Your task to perform on an android device: find snoozed emails in the gmail app Image 0: 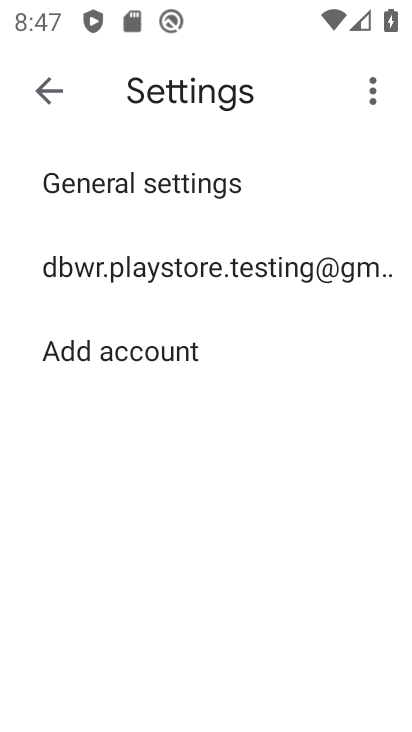
Step 0: press home button
Your task to perform on an android device: find snoozed emails in the gmail app Image 1: 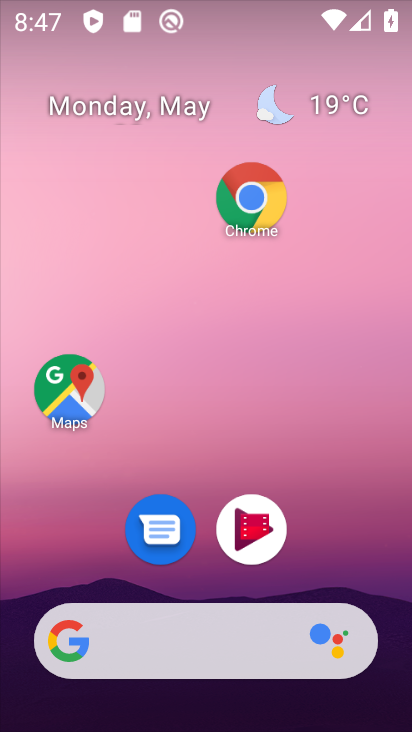
Step 1: drag from (313, 584) to (296, 1)
Your task to perform on an android device: find snoozed emails in the gmail app Image 2: 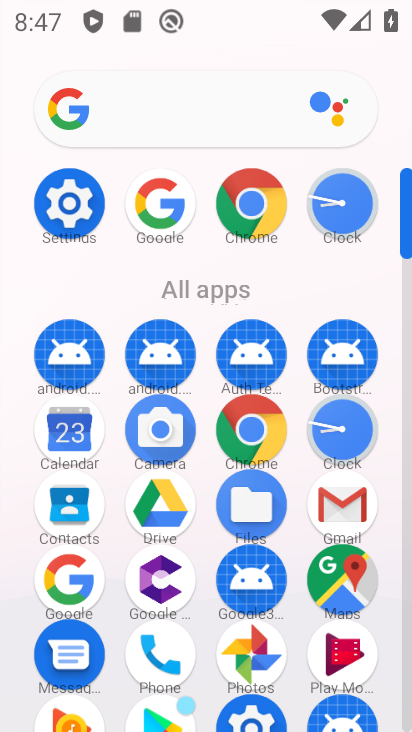
Step 2: click (342, 507)
Your task to perform on an android device: find snoozed emails in the gmail app Image 3: 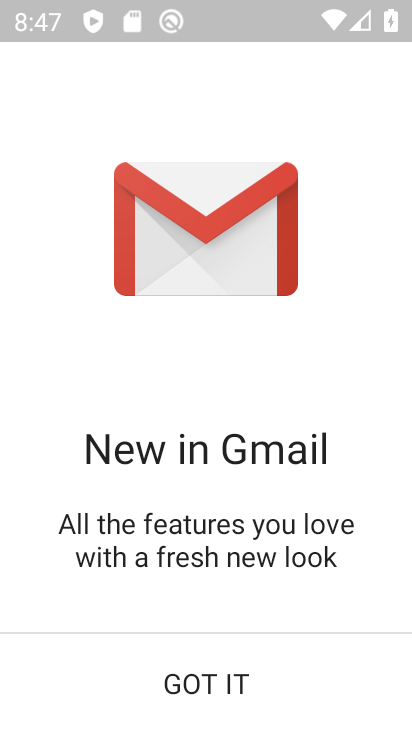
Step 3: click (211, 679)
Your task to perform on an android device: find snoozed emails in the gmail app Image 4: 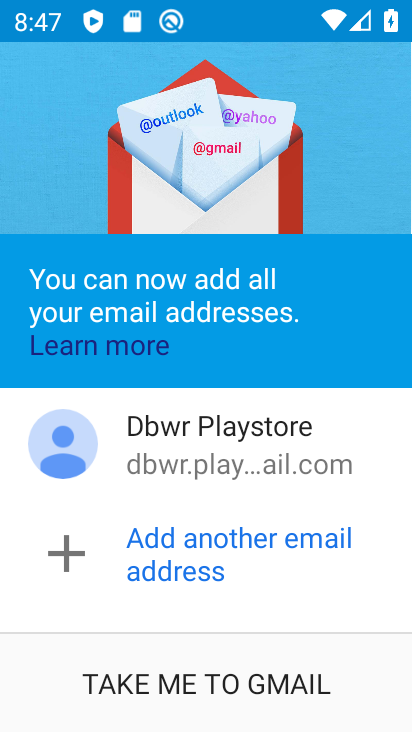
Step 4: click (201, 707)
Your task to perform on an android device: find snoozed emails in the gmail app Image 5: 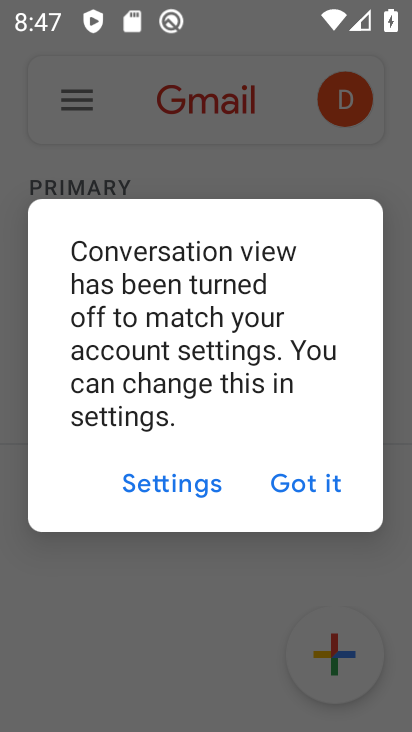
Step 5: click (285, 499)
Your task to perform on an android device: find snoozed emails in the gmail app Image 6: 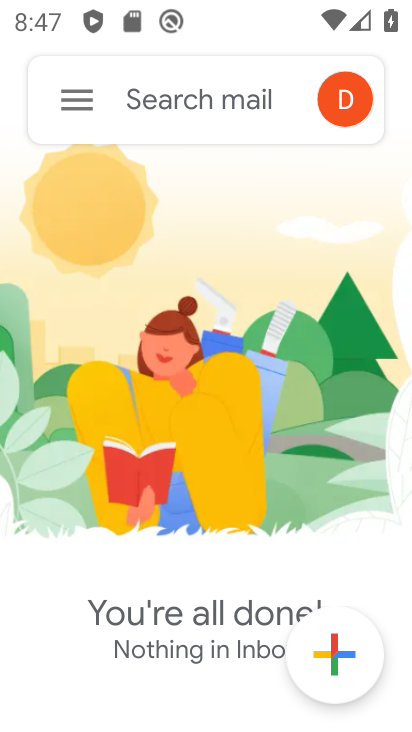
Step 6: click (79, 103)
Your task to perform on an android device: find snoozed emails in the gmail app Image 7: 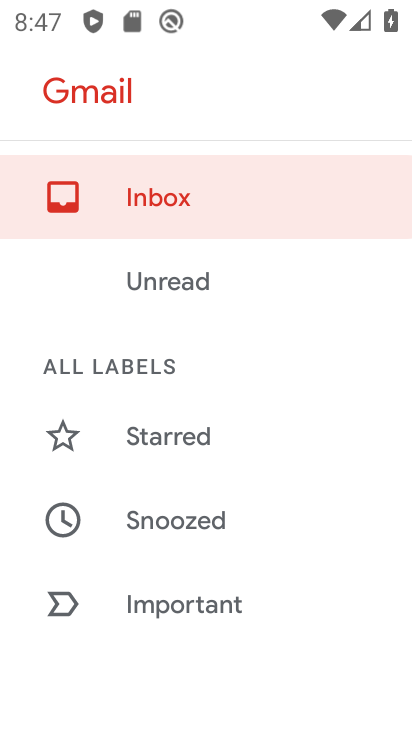
Step 7: click (176, 537)
Your task to perform on an android device: find snoozed emails in the gmail app Image 8: 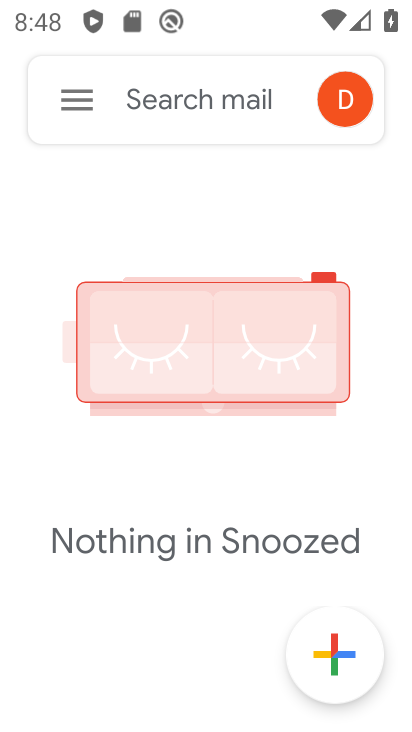
Step 8: task complete